Your task to perform on an android device: Open calendar and show me the third week of next month Image 0: 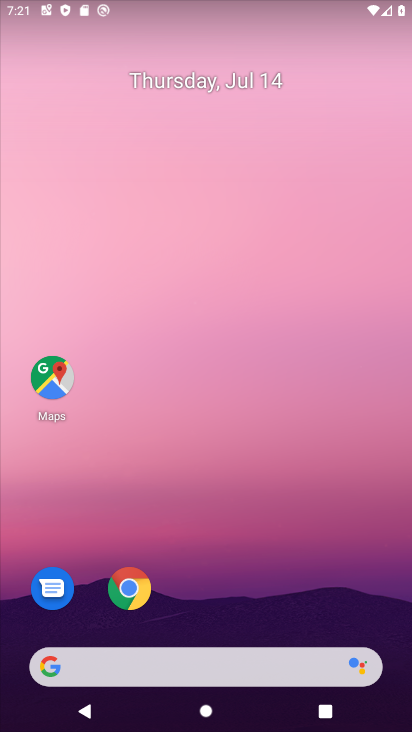
Step 0: drag from (383, 626) to (248, 0)
Your task to perform on an android device: Open calendar and show me the third week of next month Image 1: 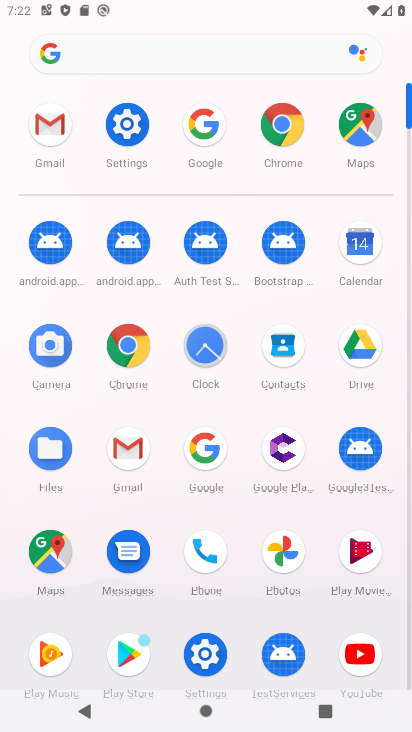
Step 1: click (353, 262)
Your task to perform on an android device: Open calendar and show me the third week of next month Image 2: 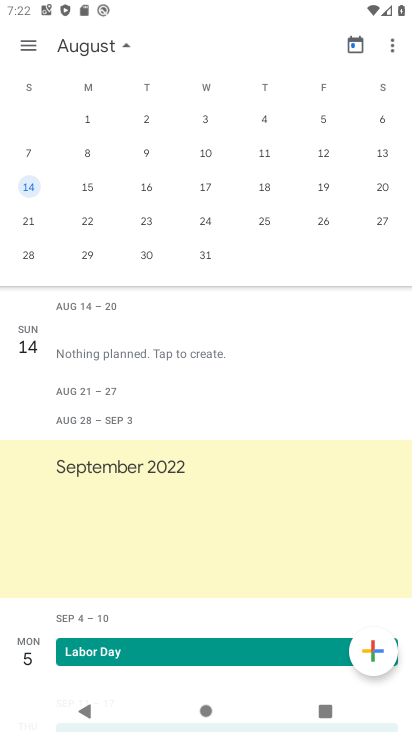
Step 2: drag from (364, 164) to (46, 190)
Your task to perform on an android device: Open calendar and show me the third week of next month Image 3: 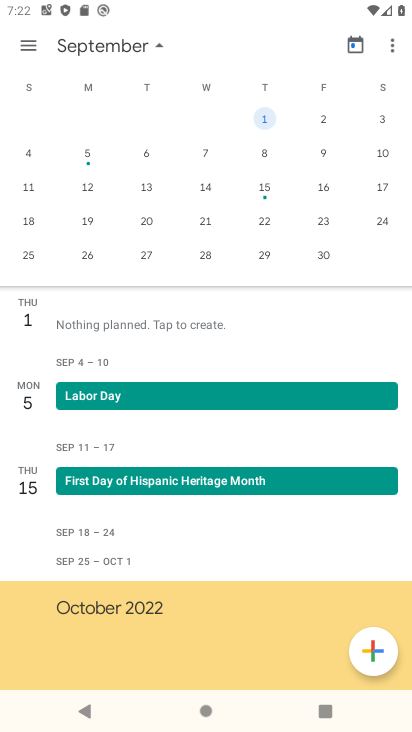
Step 3: click (31, 220)
Your task to perform on an android device: Open calendar and show me the third week of next month Image 4: 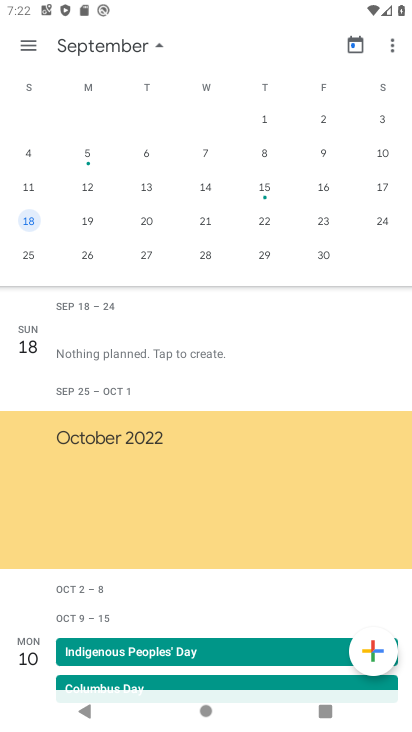
Step 4: task complete